Your task to perform on an android device: Turn on the flashlight Image 0: 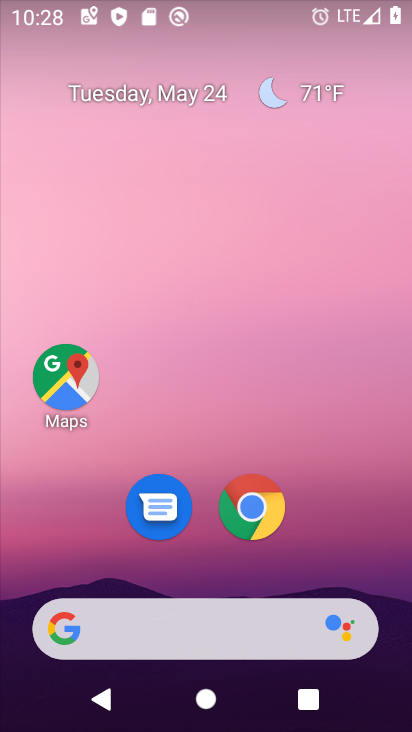
Step 0: drag from (241, 728) to (188, 134)
Your task to perform on an android device: Turn on the flashlight Image 1: 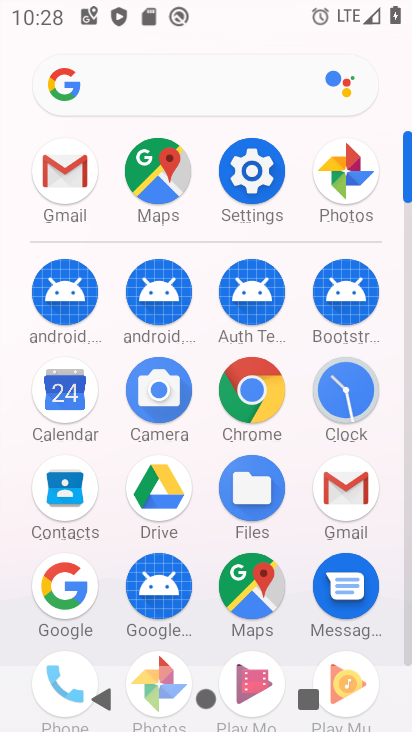
Step 1: click (253, 161)
Your task to perform on an android device: Turn on the flashlight Image 2: 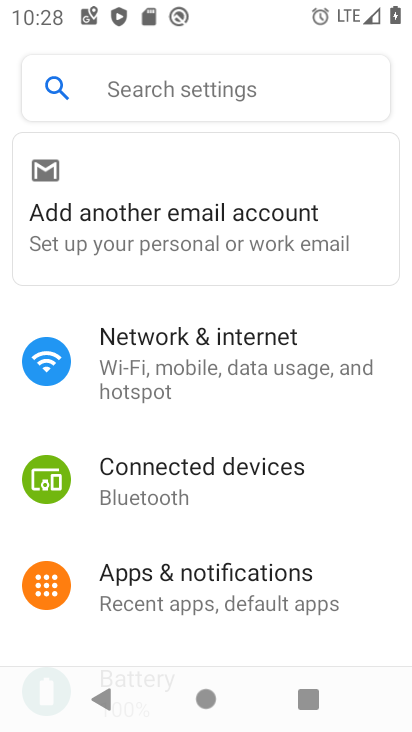
Step 2: task complete